Your task to perform on an android device: turn on bluetooth scan Image 0: 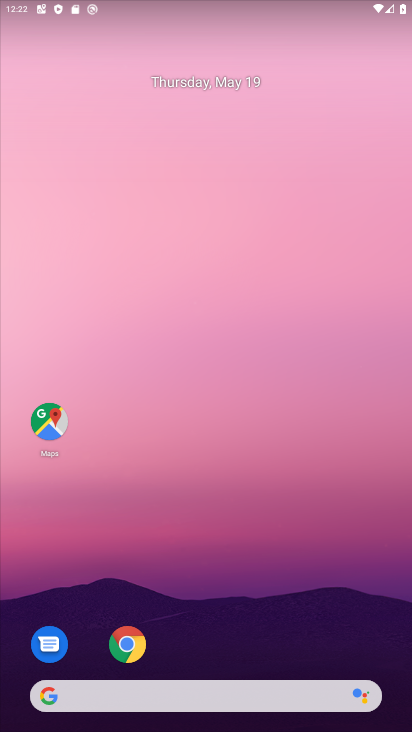
Step 0: drag from (312, 637) to (314, 213)
Your task to perform on an android device: turn on bluetooth scan Image 1: 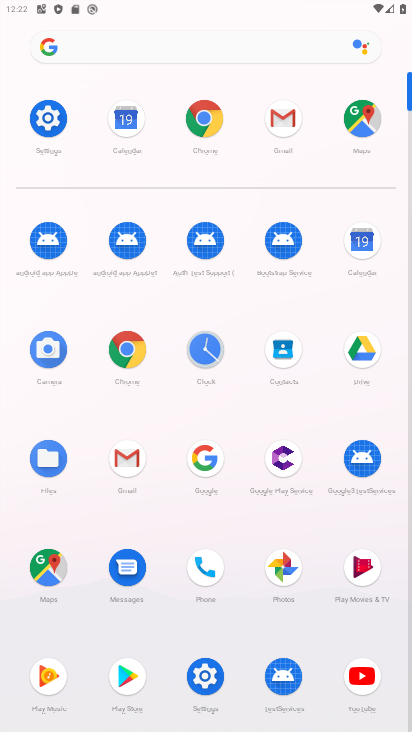
Step 1: click (207, 689)
Your task to perform on an android device: turn on bluetooth scan Image 2: 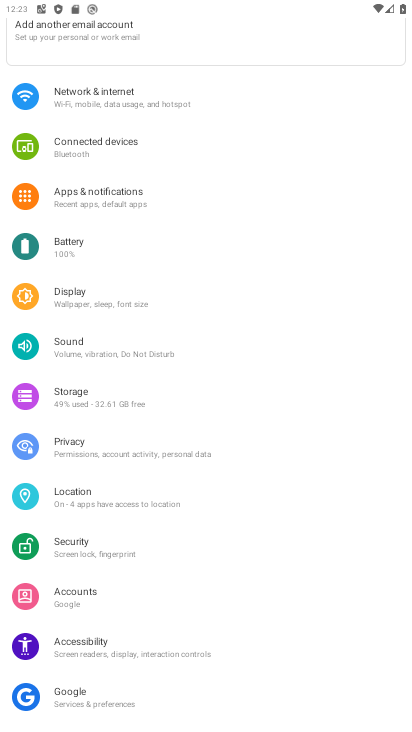
Step 2: click (113, 502)
Your task to perform on an android device: turn on bluetooth scan Image 3: 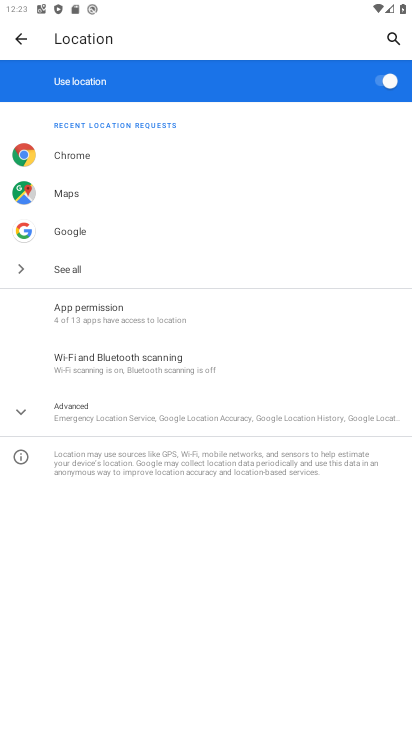
Step 3: click (141, 369)
Your task to perform on an android device: turn on bluetooth scan Image 4: 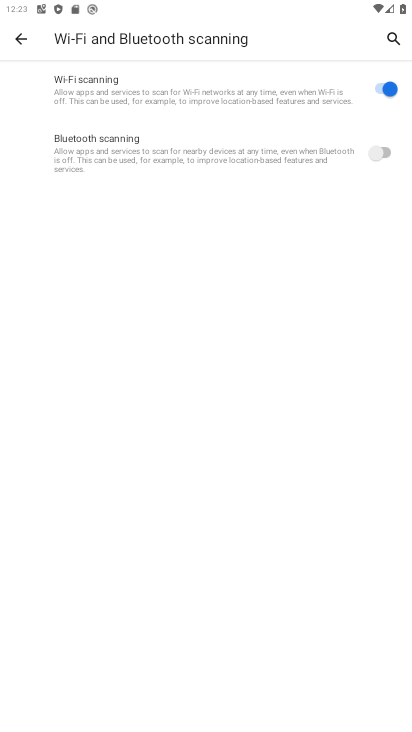
Step 4: click (383, 147)
Your task to perform on an android device: turn on bluetooth scan Image 5: 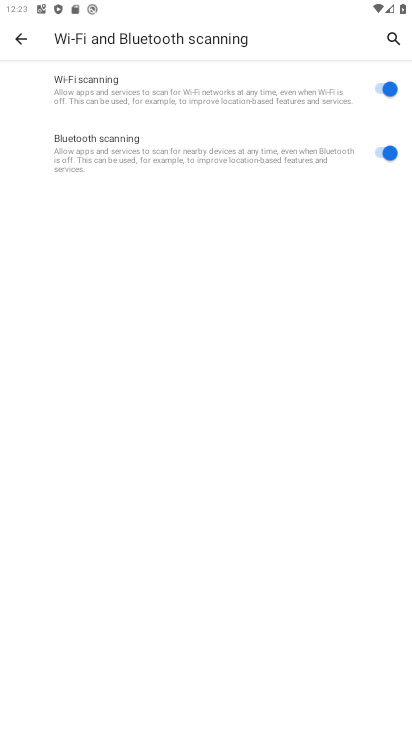
Step 5: task complete